Your task to perform on an android device: toggle sleep mode Image 0: 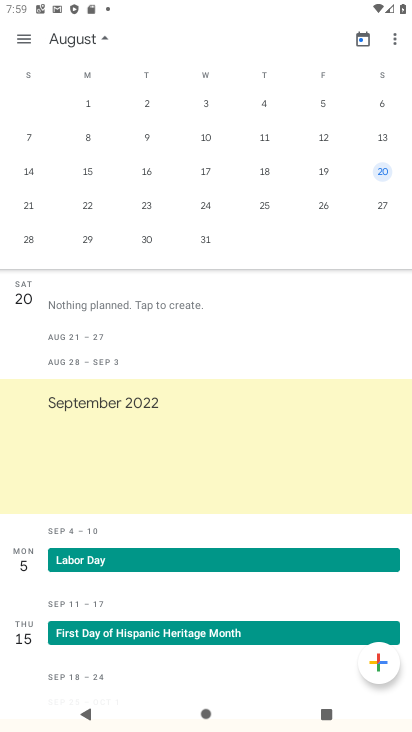
Step 0: press home button
Your task to perform on an android device: toggle sleep mode Image 1: 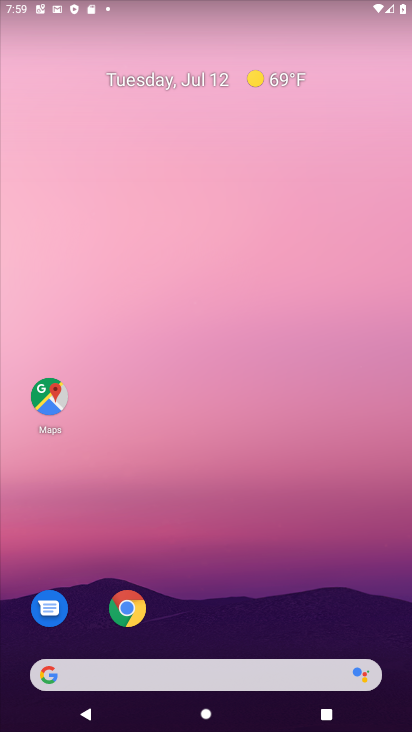
Step 1: drag from (203, 634) to (240, 224)
Your task to perform on an android device: toggle sleep mode Image 2: 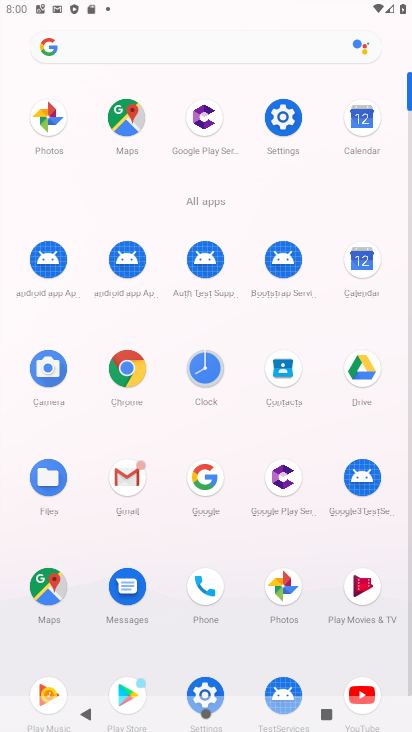
Step 2: click (279, 122)
Your task to perform on an android device: toggle sleep mode Image 3: 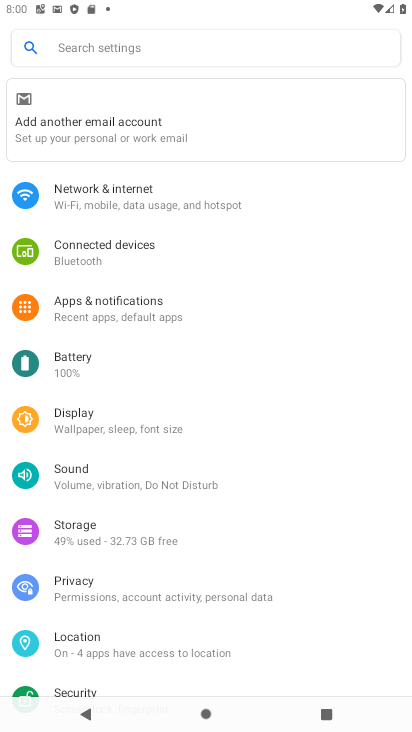
Step 3: click (108, 433)
Your task to perform on an android device: toggle sleep mode Image 4: 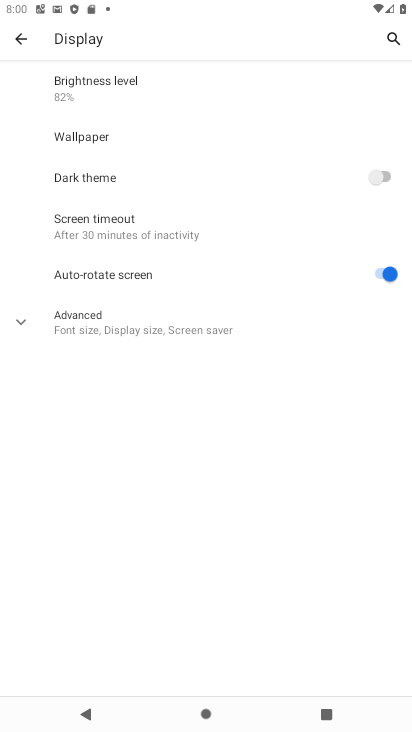
Step 4: task complete